Your task to perform on an android device: Open settings Image 0: 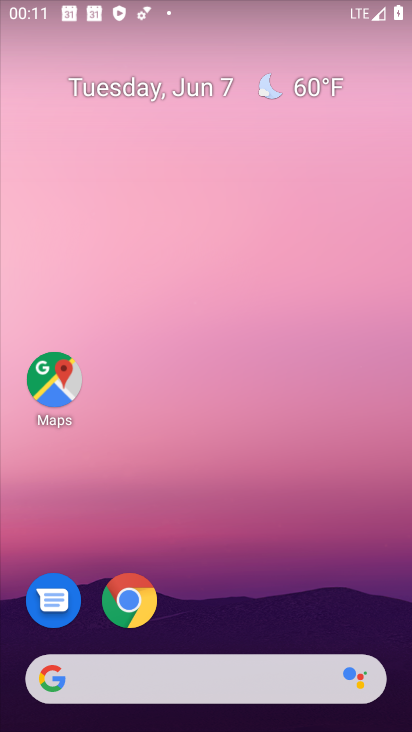
Step 0: drag from (223, 721) to (228, 307)
Your task to perform on an android device: Open settings Image 1: 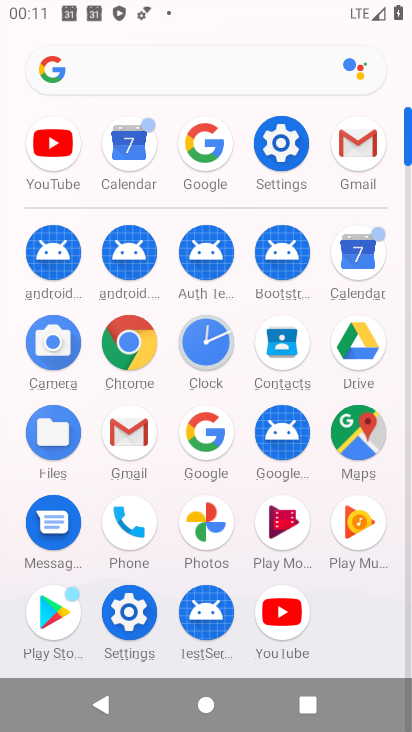
Step 1: click (274, 142)
Your task to perform on an android device: Open settings Image 2: 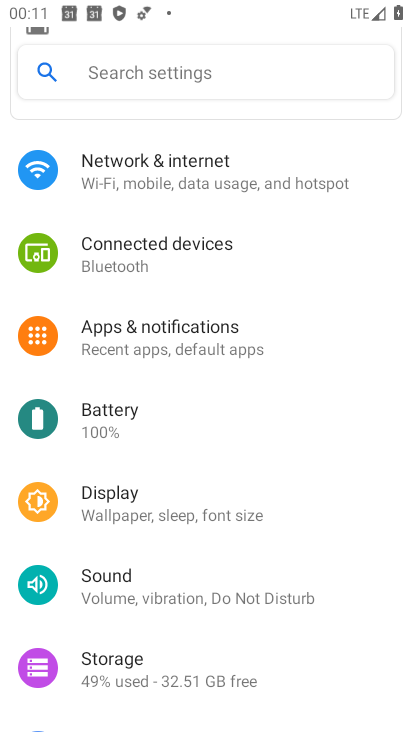
Step 2: task complete